Your task to perform on an android device: turn on the 12-hour format for clock Image 0: 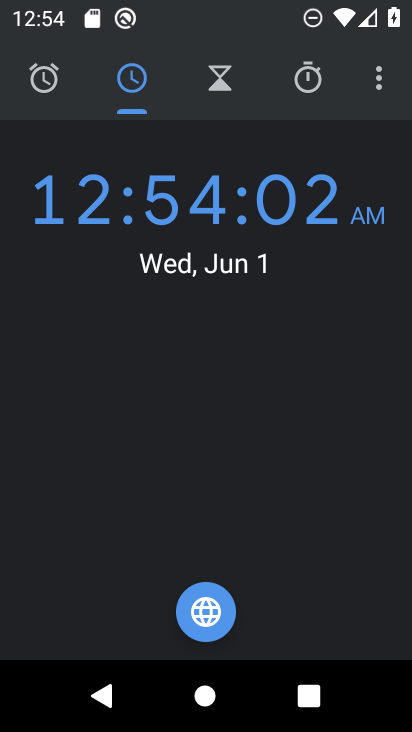
Step 0: click (380, 86)
Your task to perform on an android device: turn on the 12-hour format for clock Image 1: 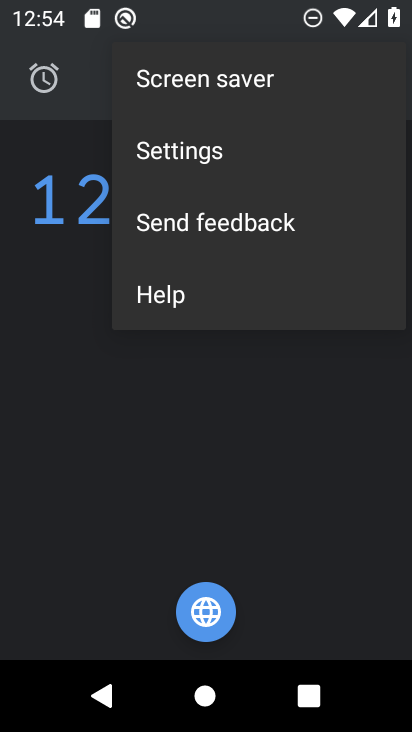
Step 1: click (268, 160)
Your task to perform on an android device: turn on the 12-hour format for clock Image 2: 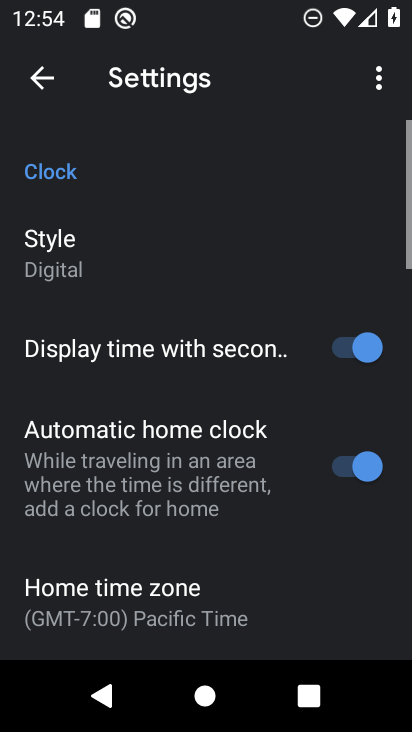
Step 2: drag from (229, 523) to (270, 229)
Your task to perform on an android device: turn on the 12-hour format for clock Image 3: 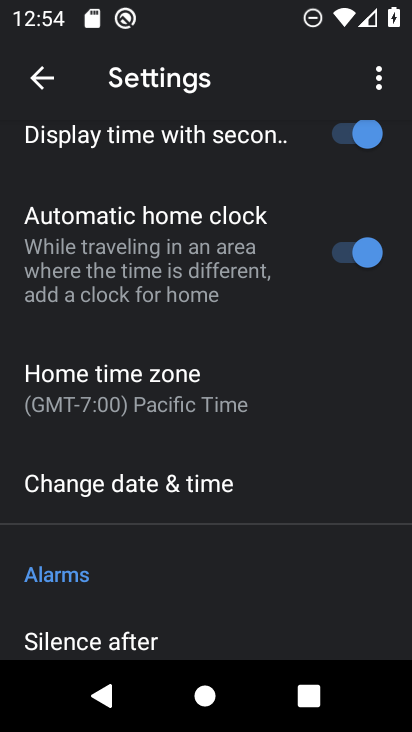
Step 3: click (182, 502)
Your task to perform on an android device: turn on the 12-hour format for clock Image 4: 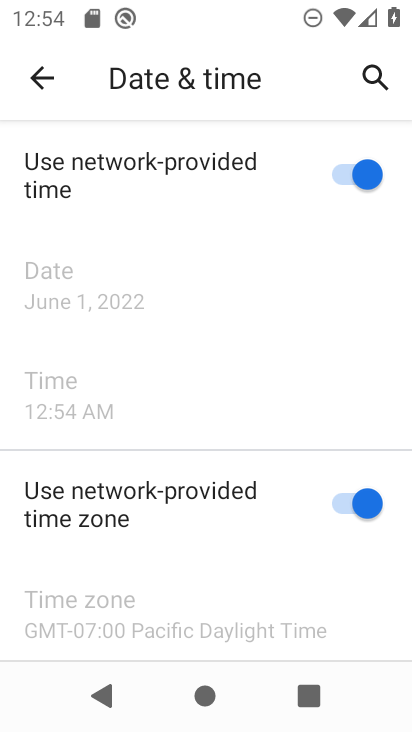
Step 4: task complete